Your task to perform on an android device: What's the weather? Image 0: 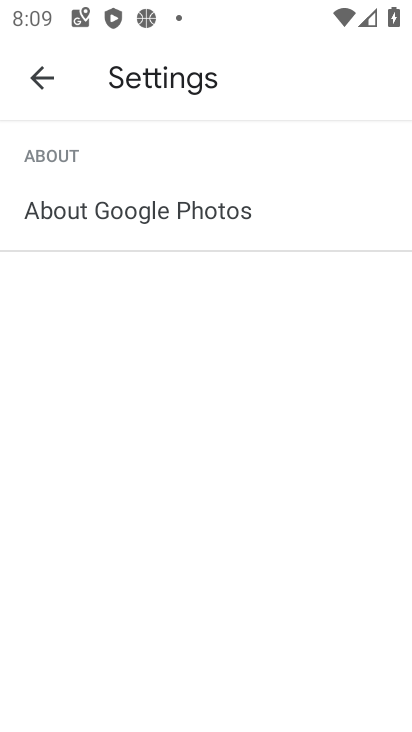
Step 0: press home button
Your task to perform on an android device: What's the weather? Image 1: 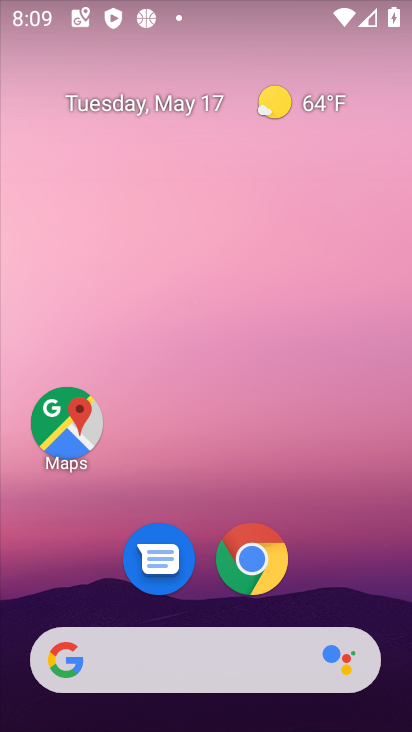
Step 1: click (233, 686)
Your task to perform on an android device: What's the weather? Image 2: 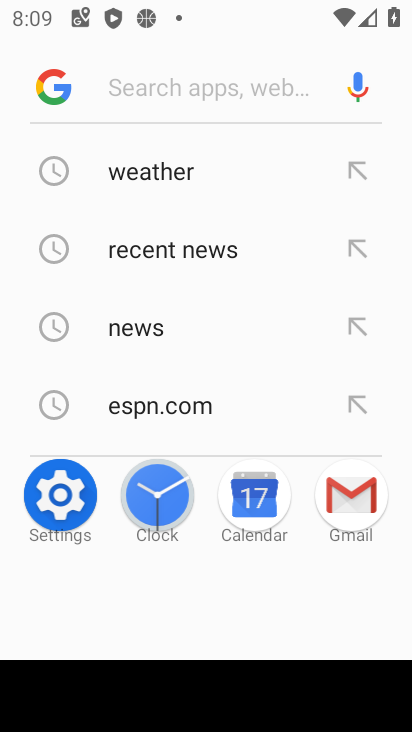
Step 2: click (180, 145)
Your task to perform on an android device: What's the weather? Image 3: 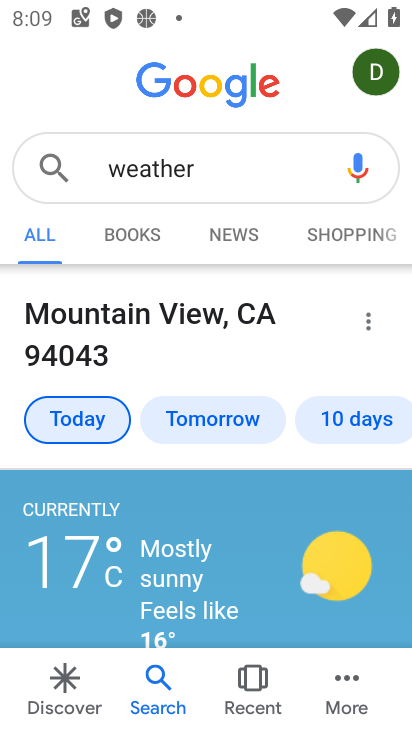
Step 3: task complete